Your task to perform on an android device: Open calendar and show me the fourth week of next month Image 0: 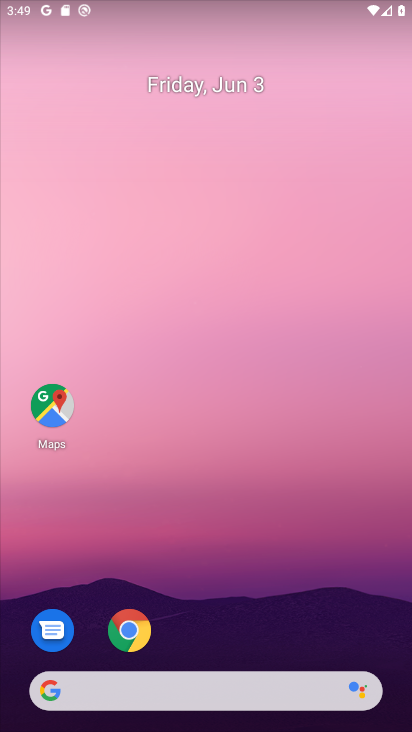
Step 0: drag from (258, 581) to (197, 30)
Your task to perform on an android device: Open calendar and show me the fourth week of next month Image 1: 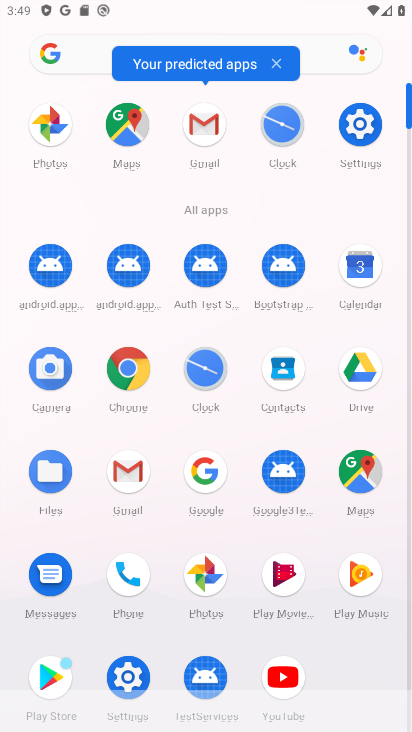
Step 1: click (362, 258)
Your task to perform on an android device: Open calendar and show me the fourth week of next month Image 2: 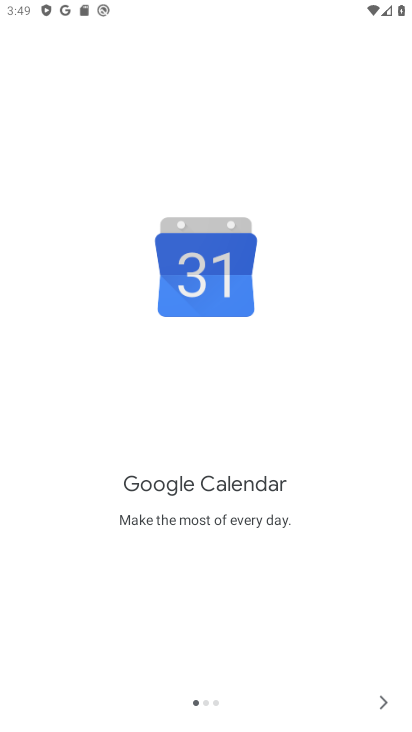
Step 2: click (382, 699)
Your task to perform on an android device: Open calendar and show me the fourth week of next month Image 3: 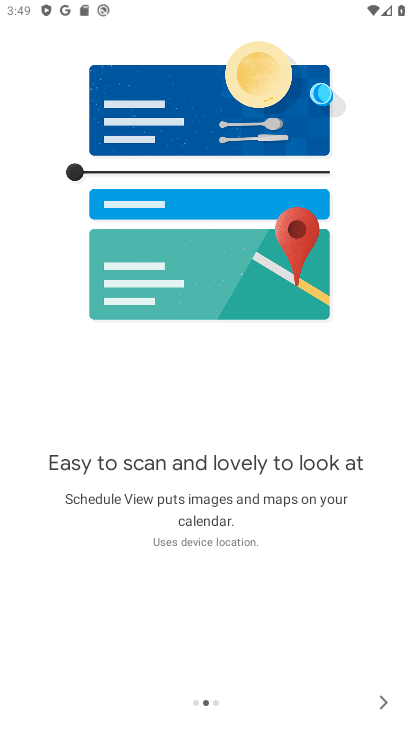
Step 3: click (382, 699)
Your task to perform on an android device: Open calendar and show me the fourth week of next month Image 4: 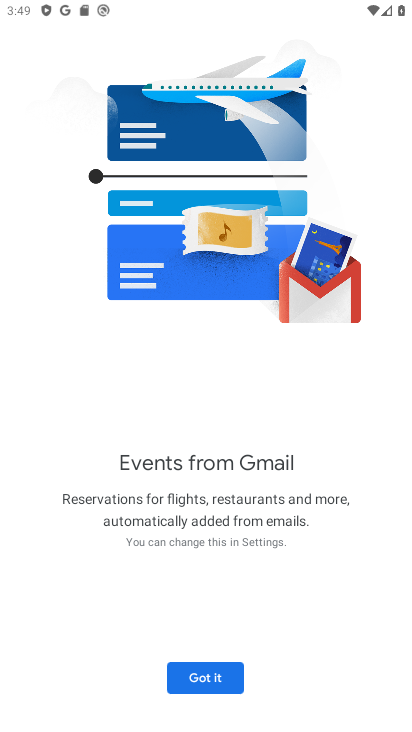
Step 4: click (213, 679)
Your task to perform on an android device: Open calendar and show me the fourth week of next month Image 5: 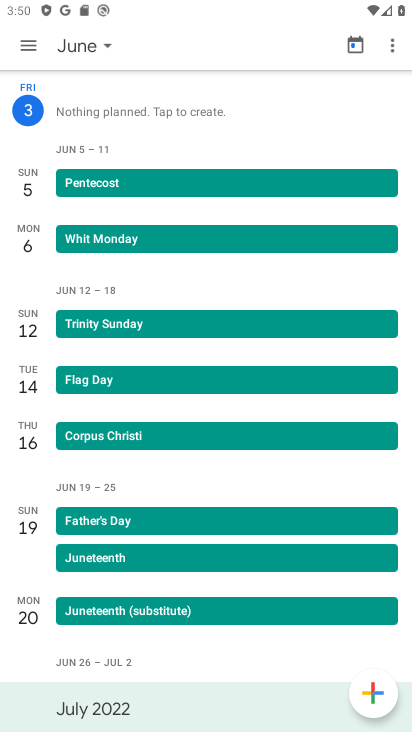
Step 5: click (67, 46)
Your task to perform on an android device: Open calendar and show me the fourth week of next month Image 6: 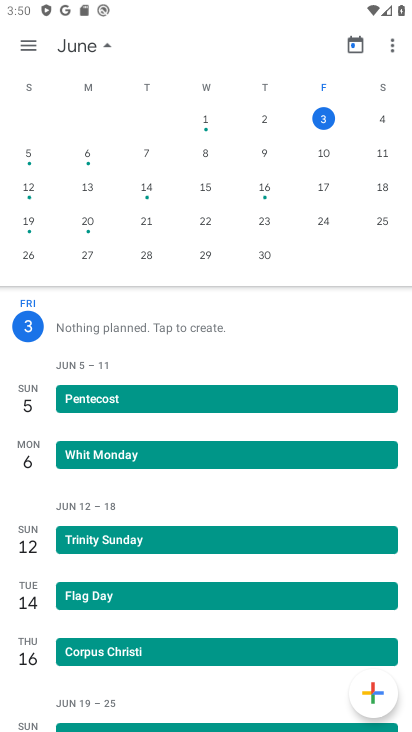
Step 6: drag from (260, 201) to (2, 205)
Your task to perform on an android device: Open calendar and show me the fourth week of next month Image 7: 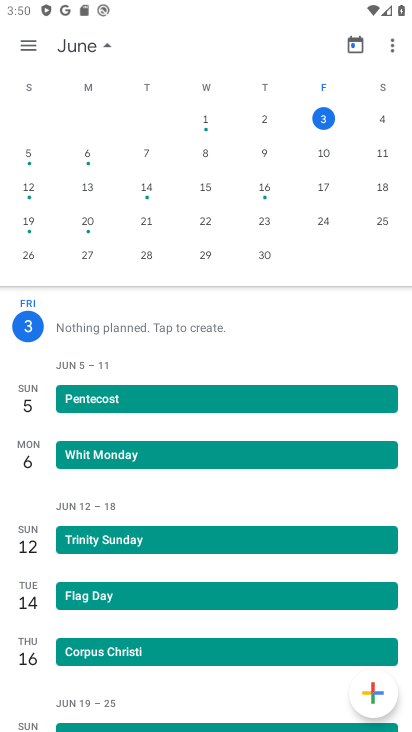
Step 7: drag from (390, 155) to (28, 119)
Your task to perform on an android device: Open calendar and show me the fourth week of next month Image 8: 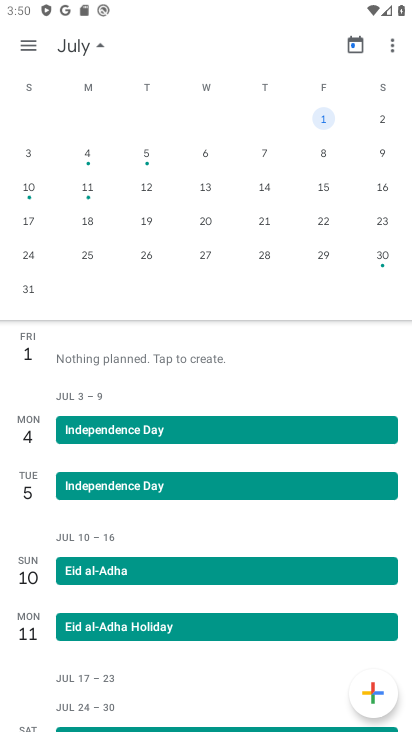
Step 8: click (26, 251)
Your task to perform on an android device: Open calendar and show me the fourth week of next month Image 9: 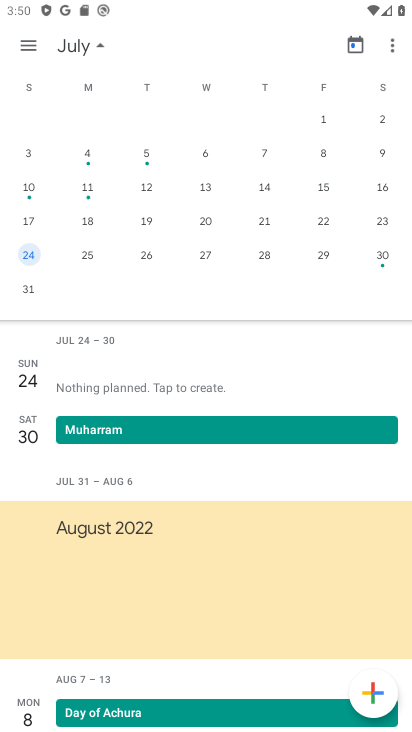
Step 9: click (37, 35)
Your task to perform on an android device: Open calendar and show me the fourth week of next month Image 10: 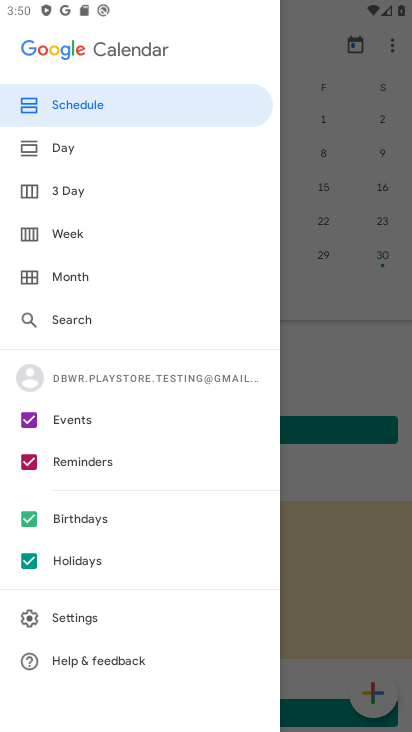
Step 10: click (88, 229)
Your task to perform on an android device: Open calendar and show me the fourth week of next month Image 11: 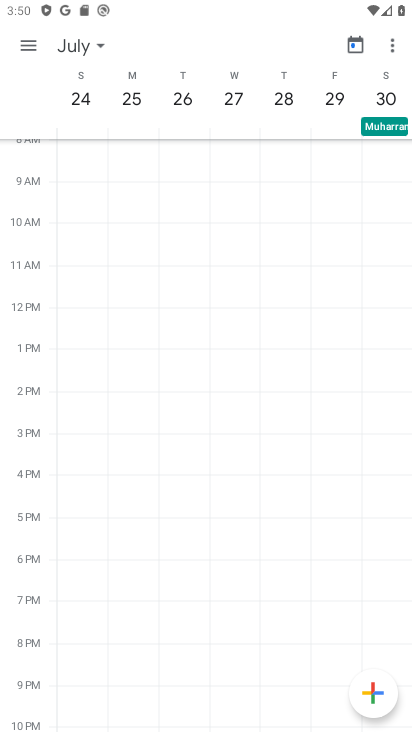
Step 11: task complete